Your task to perform on an android device: open a bookmark in the chrome app Image 0: 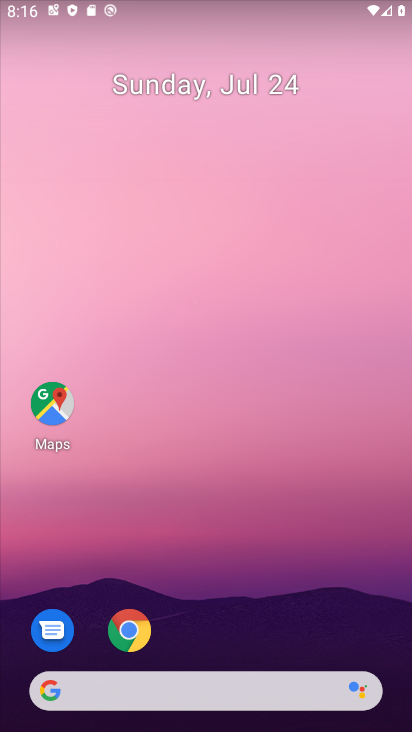
Step 0: click (136, 622)
Your task to perform on an android device: open a bookmark in the chrome app Image 1: 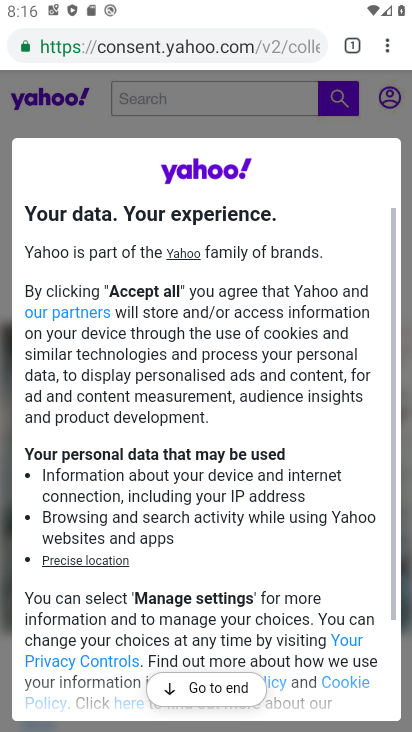
Step 1: click (388, 46)
Your task to perform on an android device: open a bookmark in the chrome app Image 2: 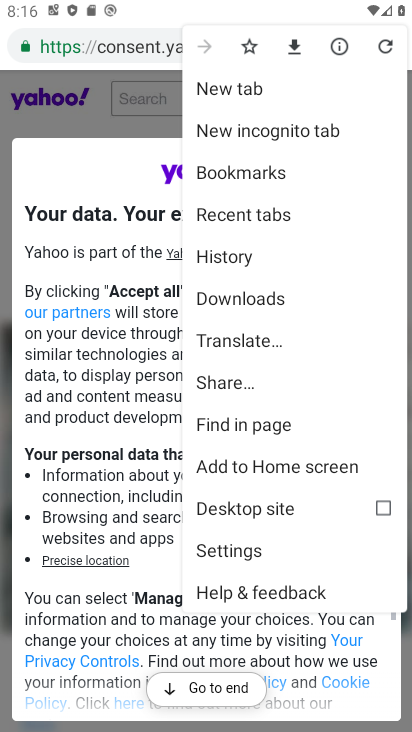
Step 2: click (250, 179)
Your task to perform on an android device: open a bookmark in the chrome app Image 3: 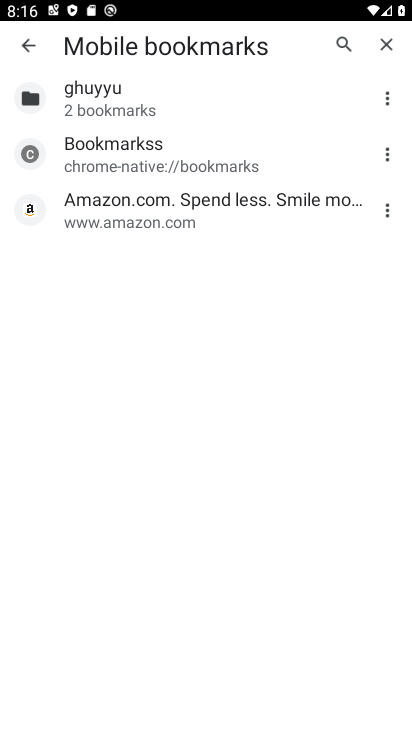
Step 3: click (151, 221)
Your task to perform on an android device: open a bookmark in the chrome app Image 4: 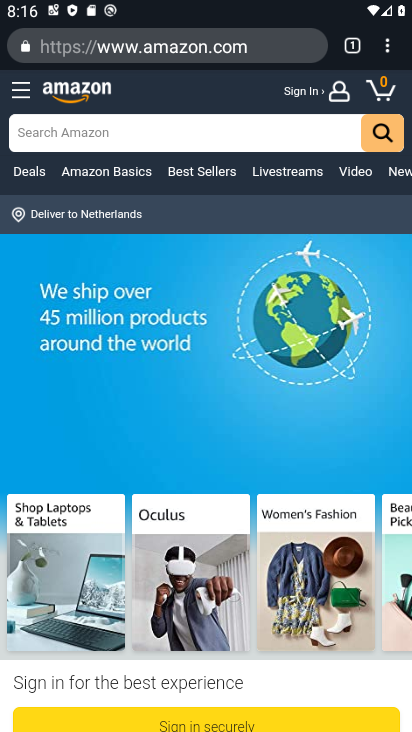
Step 4: task complete